Your task to perform on an android device: Open Chrome and go to settings Image 0: 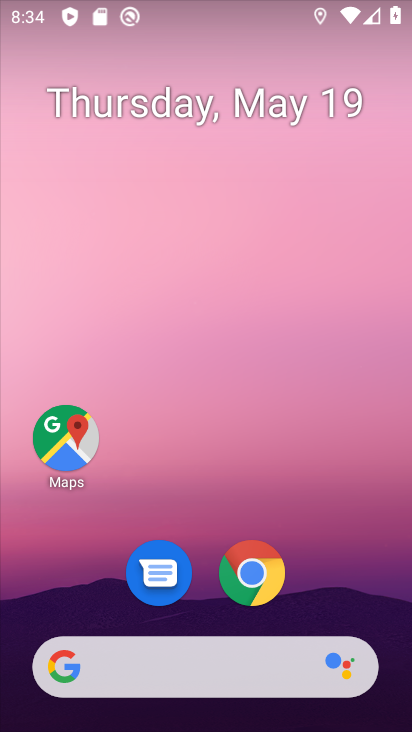
Step 0: click (262, 578)
Your task to perform on an android device: Open Chrome and go to settings Image 1: 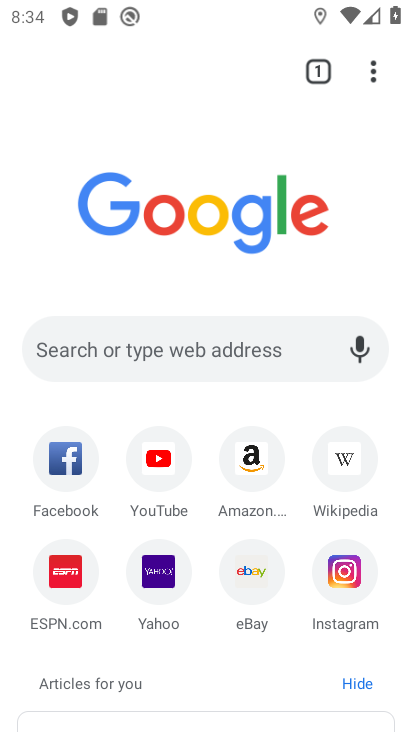
Step 1: click (375, 73)
Your task to perform on an android device: Open Chrome and go to settings Image 2: 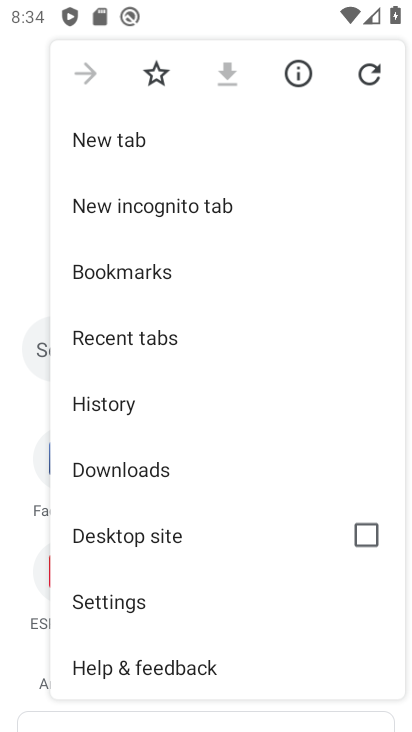
Step 2: click (120, 605)
Your task to perform on an android device: Open Chrome and go to settings Image 3: 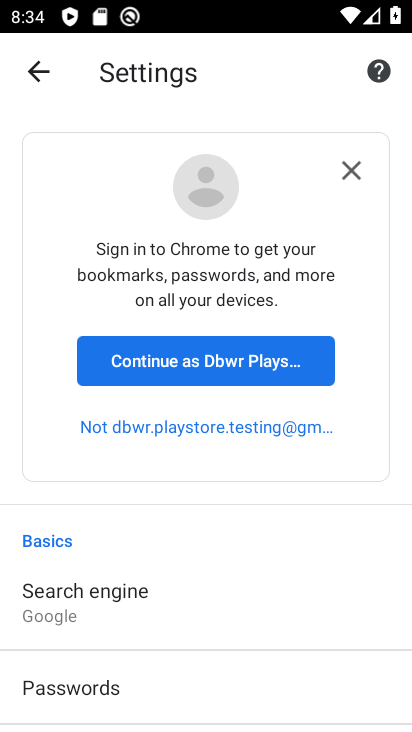
Step 3: task complete